Your task to perform on an android device: turn notification dots on Image 0: 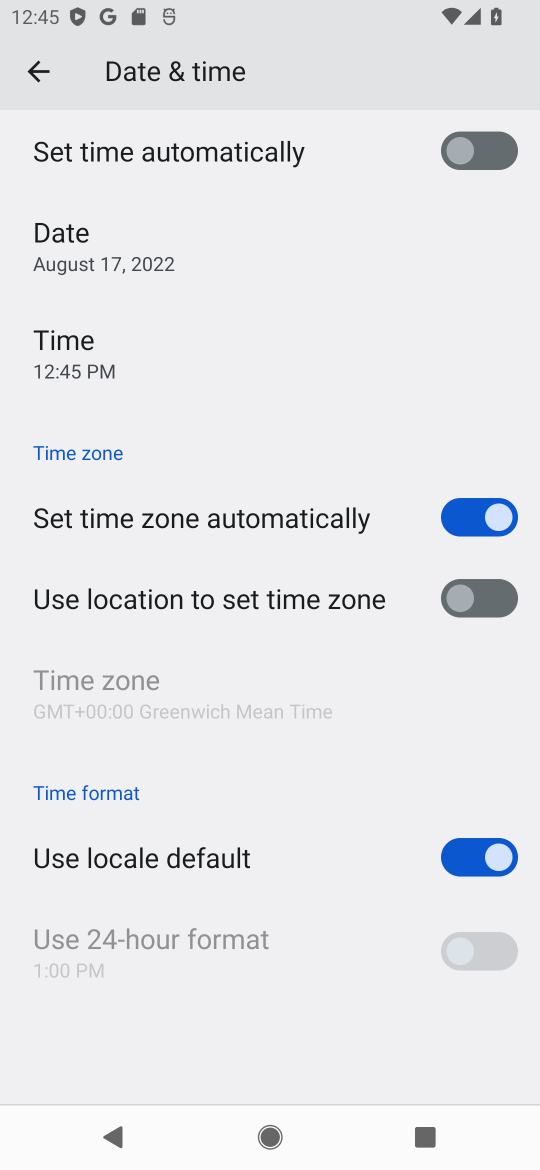
Step 0: press home button
Your task to perform on an android device: turn notification dots on Image 1: 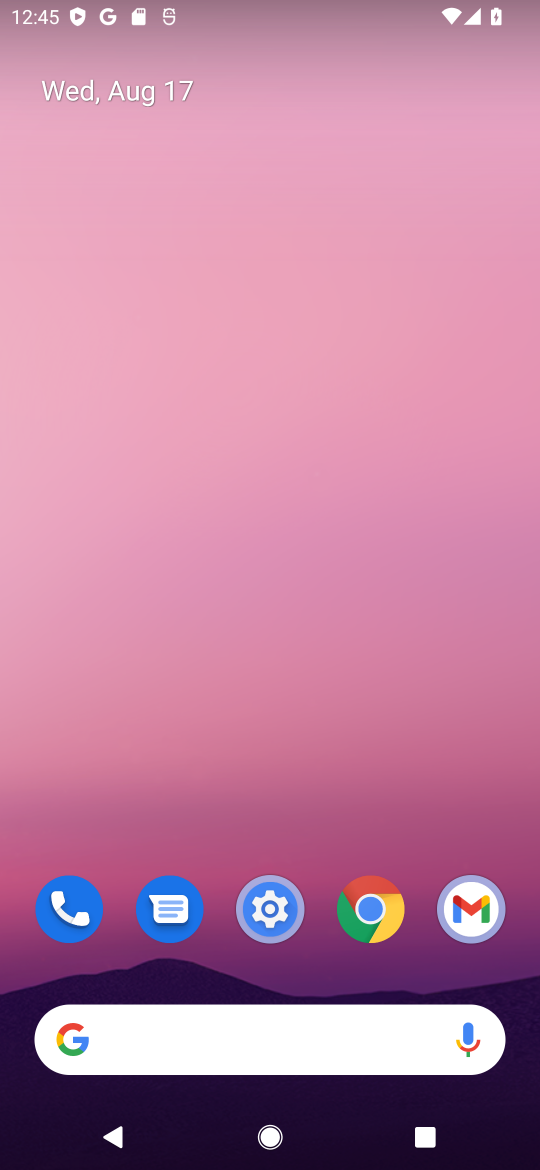
Step 1: click (273, 903)
Your task to perform on an android device: turn notification dots on Image 2: 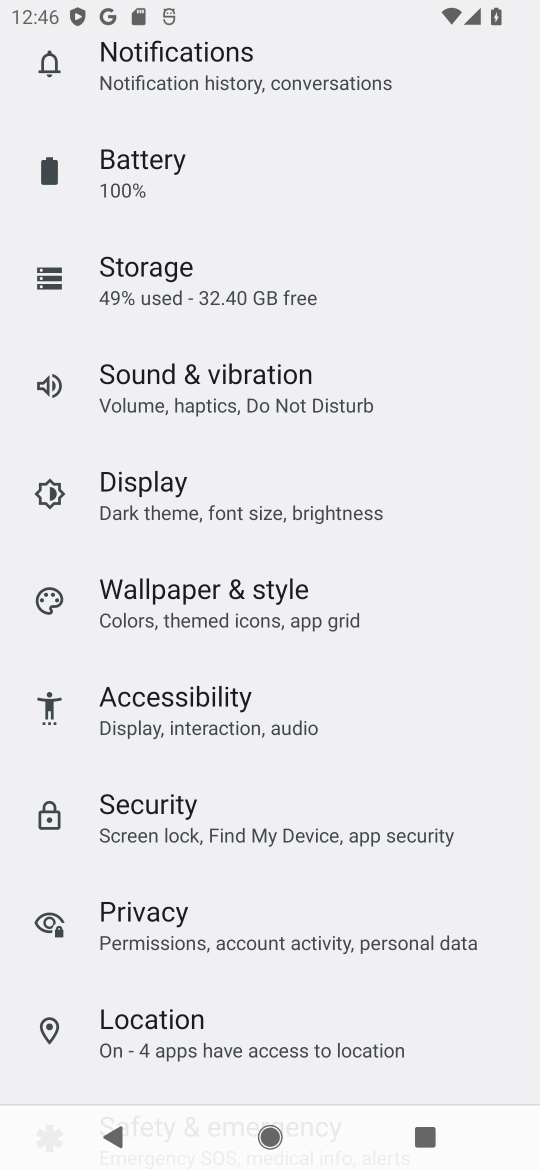
Step 2: click (191, 51)
Your task to perform on an android device: turn notification dots on Image 3: 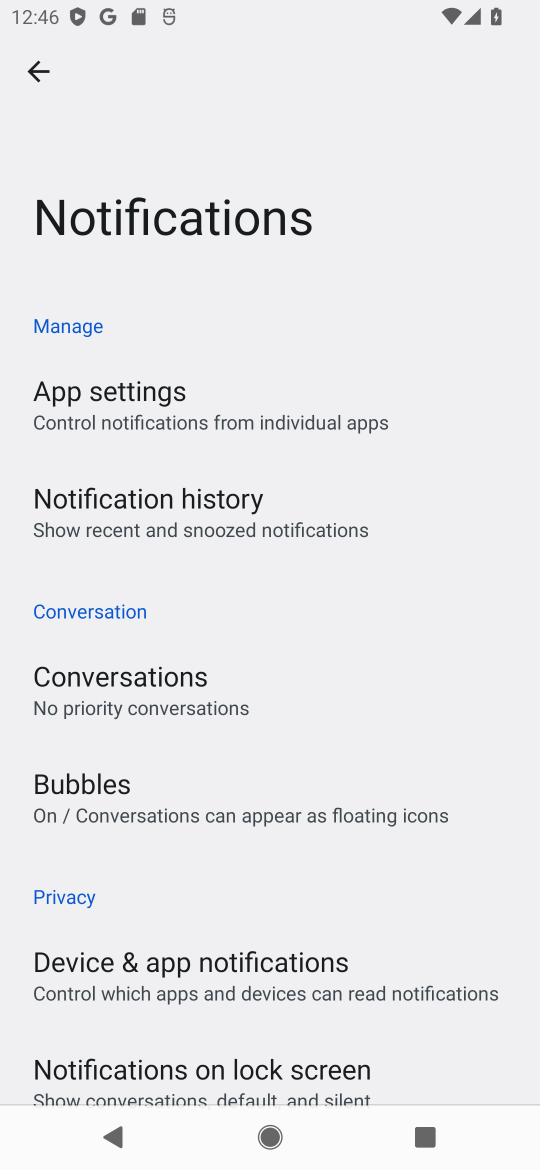
Step 3: task complete